Your task to perform on an android device: set the stopwatch Image 0: 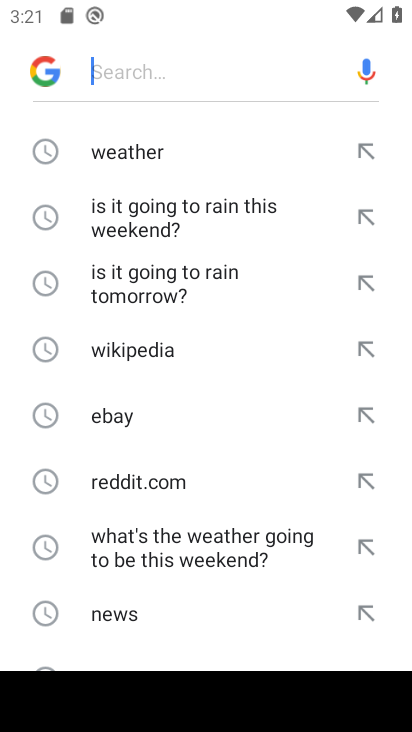
Step 0: press home button
Your task to perform on an android device: set the stopwatch Image 1: 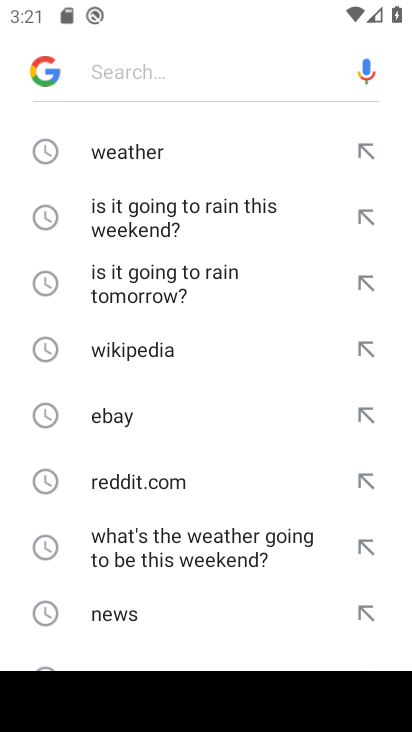
Step 1: press home button
Your task to perform on an android device: set the stopwatch Image 2: 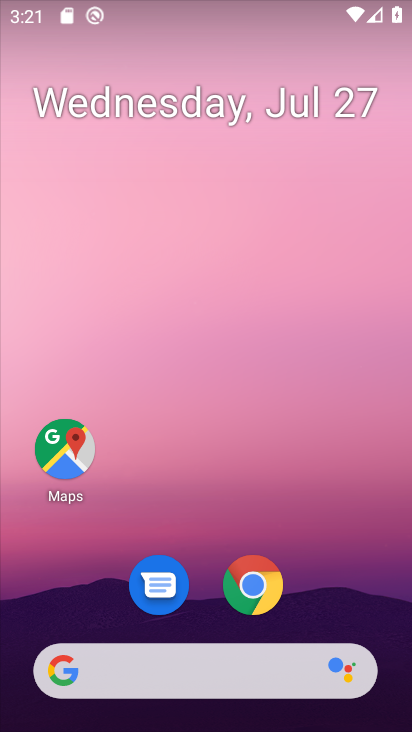
Step 2: drag from (215, 526) to (216, 0)
Your task to perform on an android device: set the stopwatch Image 3: 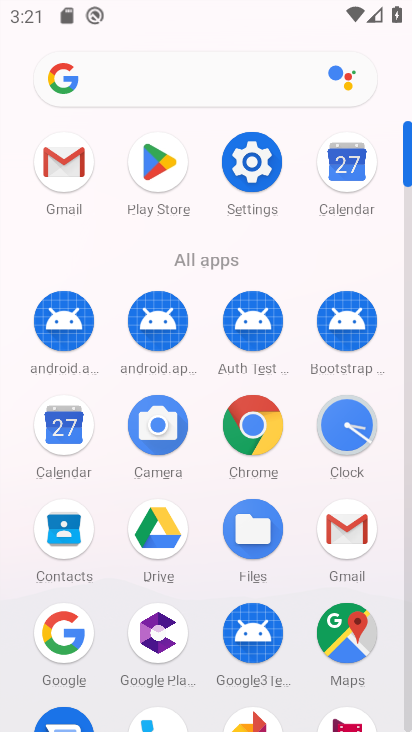
Step 3: click (354, 413)
Your task to perform on an android device: set the stopwatch Image 4: 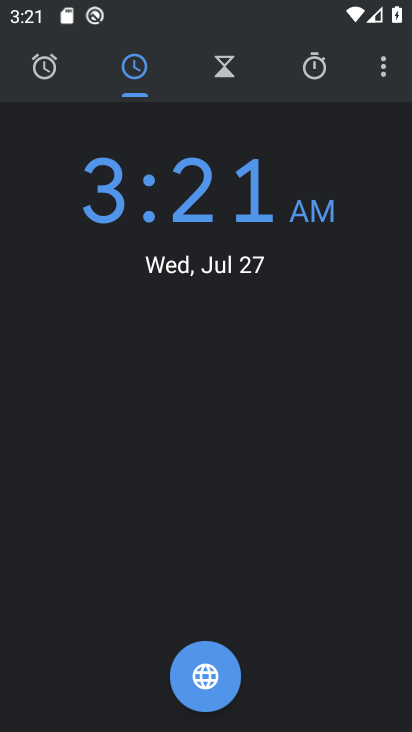
Step 4: click (318, 69)
Your task to perform on an android device: set the stopwatch Image 5: 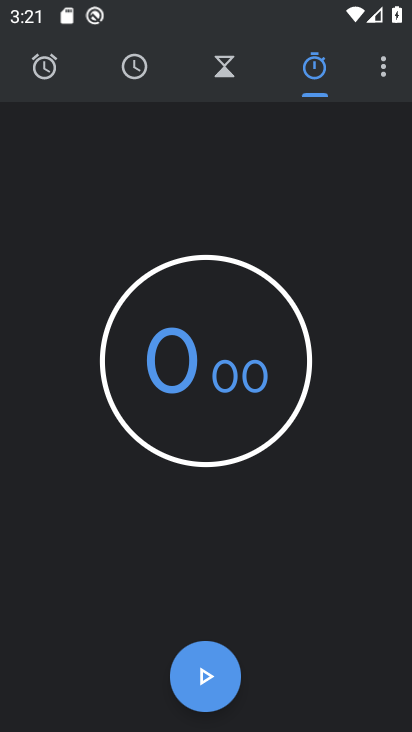
Step 5: task complete